Your task to perform on an android device: read, delete, or share a saved page in the chrome app Image 0: 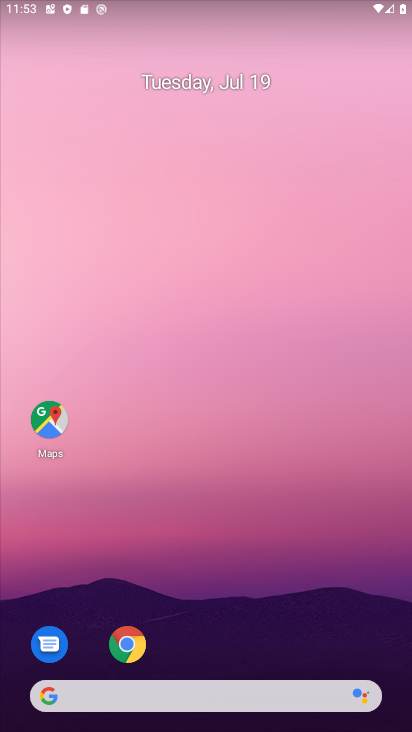
Step 0: press home button
Your task to perform on an android device: read, delete, or share a saved page in the chrome app Image 1: 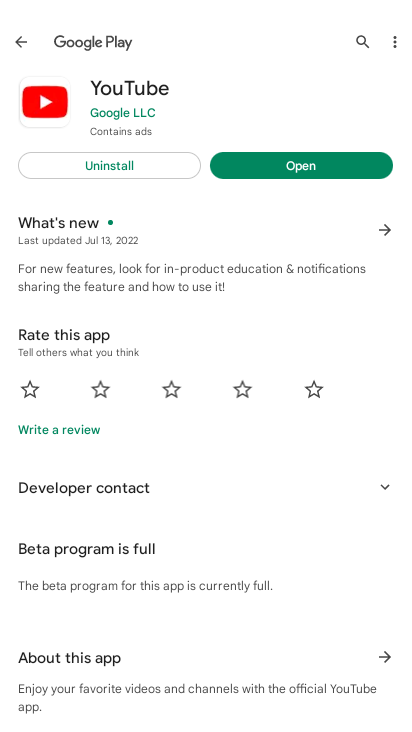
Step 1: click (298, 153)
Your task to perform on an android device: read, delete, or share a saved page in the chrome app Image 2: 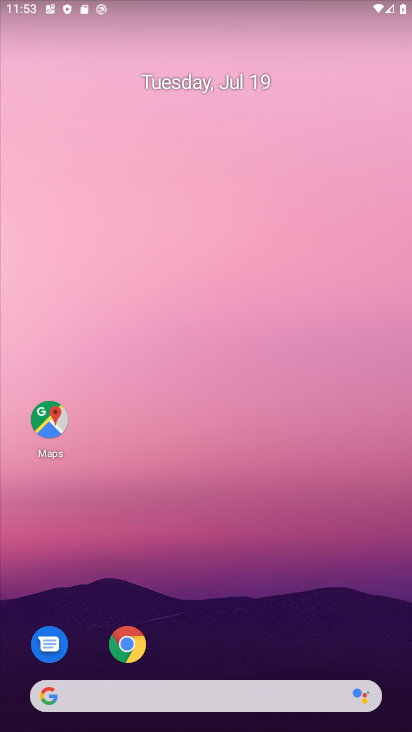
Step 2: click (136, 648)
Your task to perform on an android device: read, delete, or share a saved page in the chrome app Image 3: 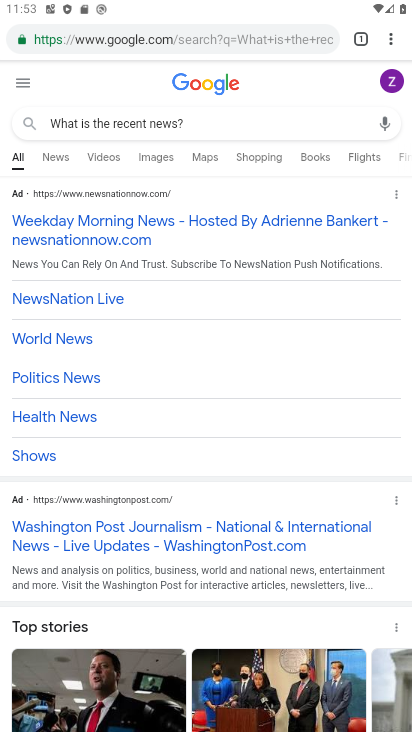
Step 3: drag from (392, 43) to (292, 259)
Your task to perform on an android device: read, delete, or share a saved page in the chrome app Image 4: 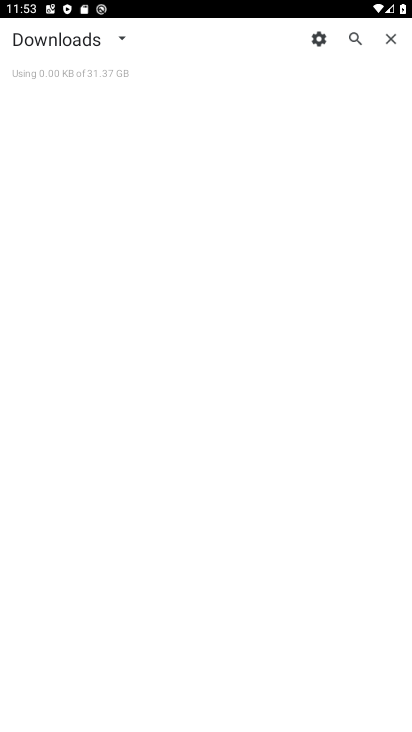
Step 4: click (124, 43)
Your task to perform on an android device: read, delete, or share a saved page in the chrome app Image 5: 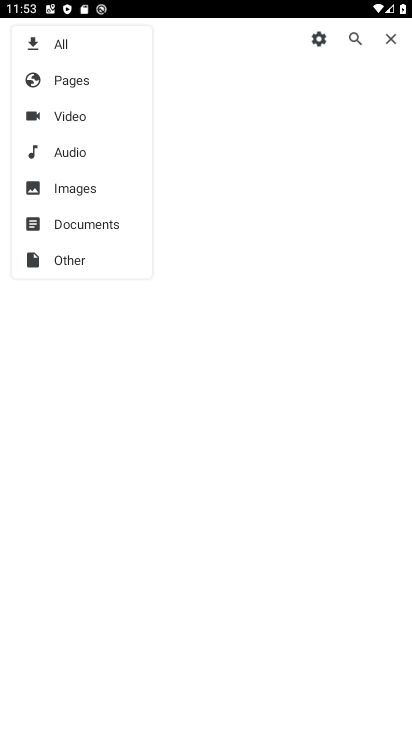
Step 5: click (63, 84)
Your task to perform on an android device: read, delete, or share a saved page in the chrome app Image 6: 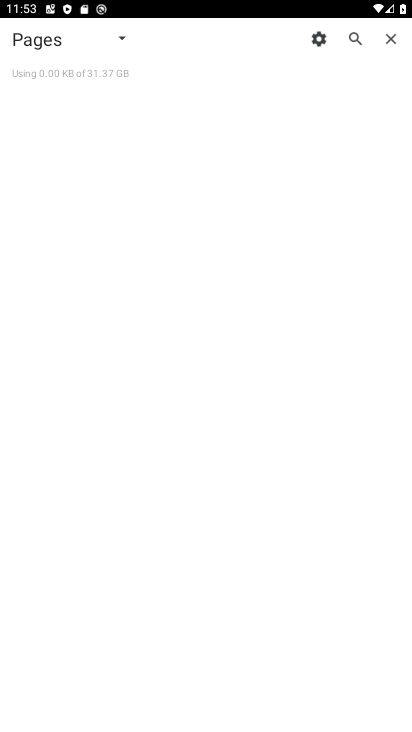
Step 6: task complete